Your task to perform on an android device: turn off data saver in the chrome app Image 0: 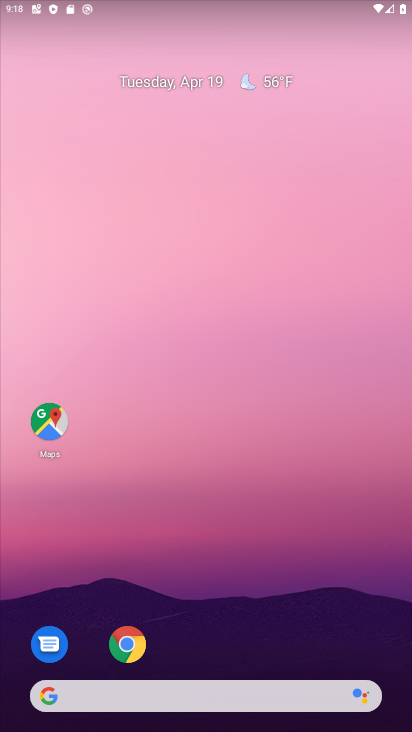
Step 0: click (131, 630)
Your task to perform on an android device: turn off data saver in the chrome app Image 1: 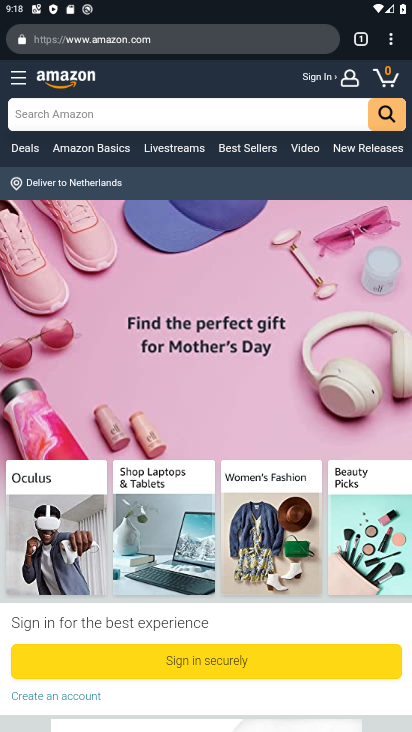
Step 1: click (394, 52)
Your task to perform on an android device: turn off data saver in the chrome app Image 2: 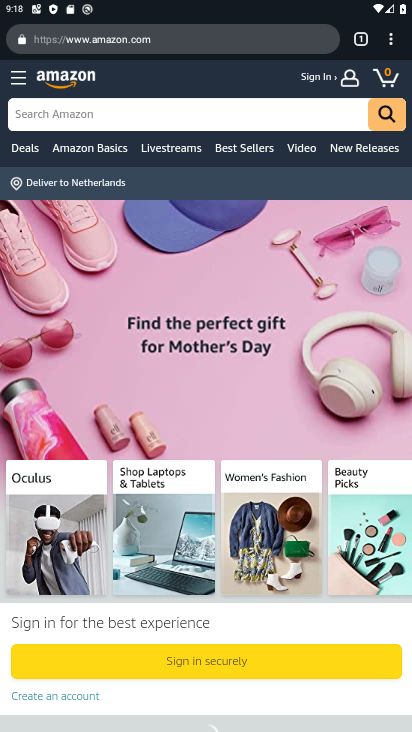
Step 2: drag from (382, 41) to (258, 423)
Your task to perform on an android device: turn off data saver in the chrome app Image 3: 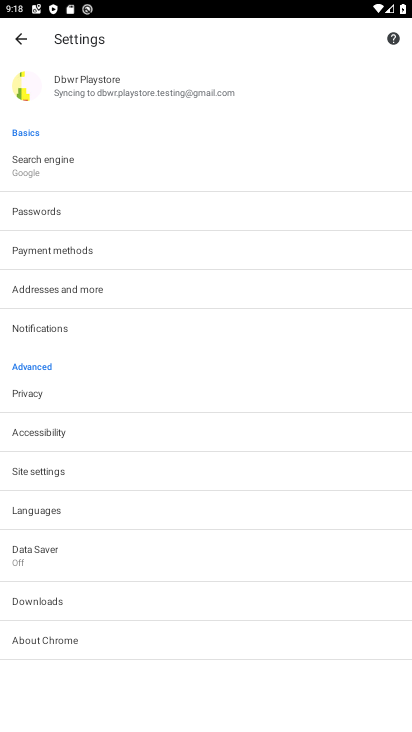
Step 3: click (82, 544)
Your task to perform on an android device: turn off data saver in the chrome app Image 4: 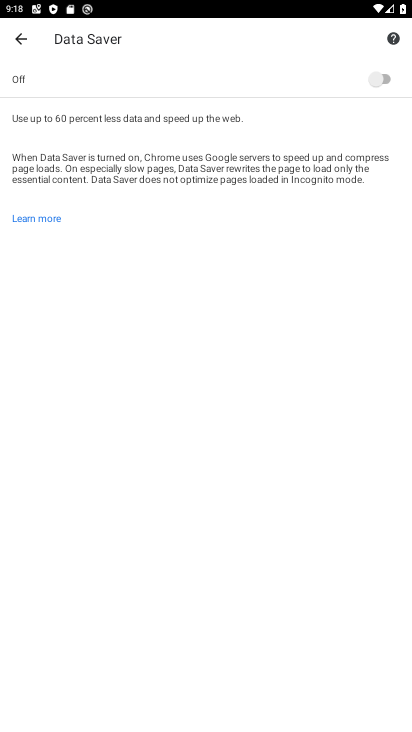
Step 4: task complete